Your task to perform on an android device: Go to Wikipedia Image 0: 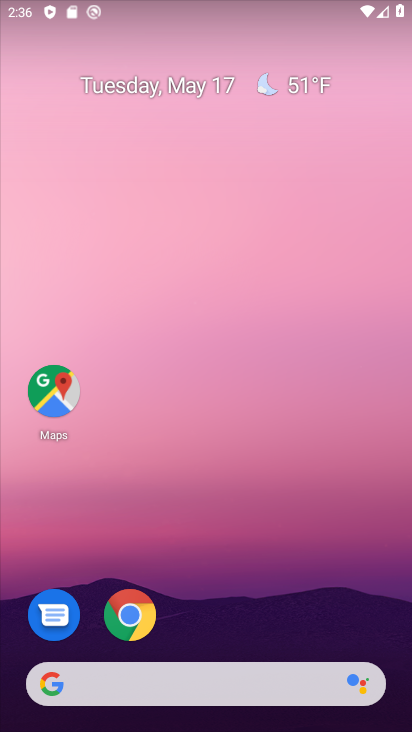
Step 0: drag from (209, 639) to (307, 186)
Your task to perform on an android device: Go to Wikipedia Image 1: 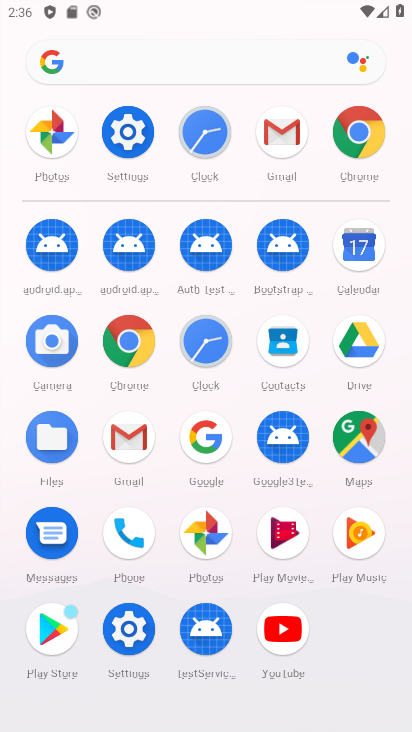
Step 1: click (123, 336)
Your task to perform on an android device: Go to Wikipedia Image 2: 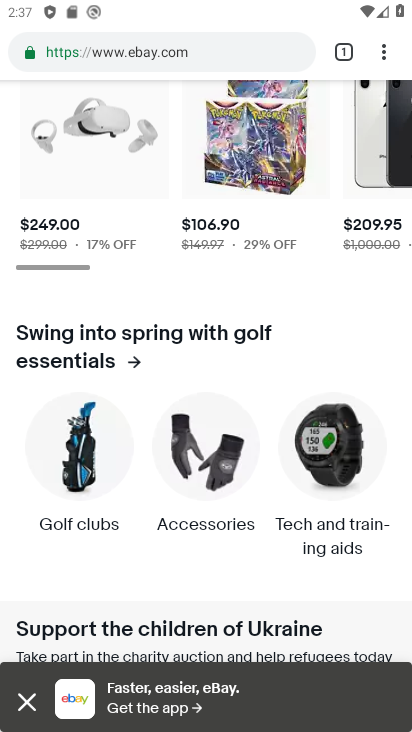
Step 2: click (343, 45)
Your task to perform on an android device: Go to Wikipedia Image 3: 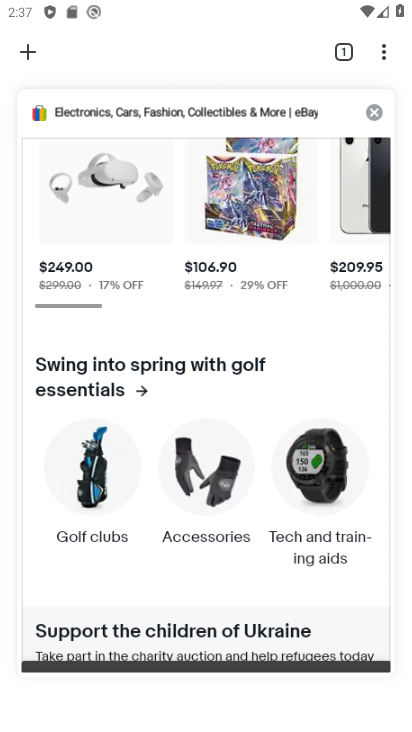
Step 3: click (373, 108)
Your task to perform on an android device: Go to Wikipedia Image 4: 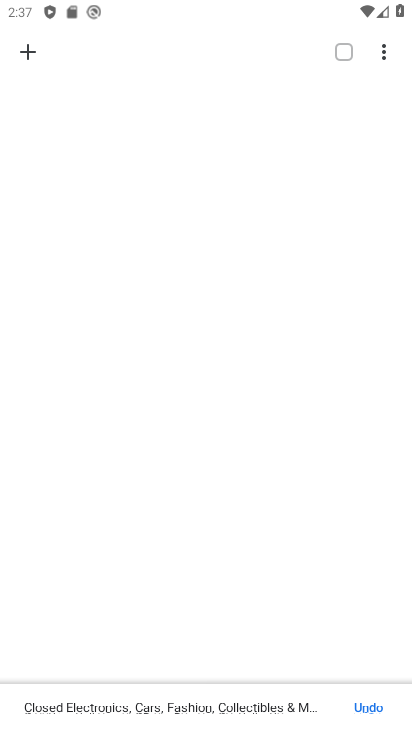
Step 4: click (28, 50)
Your task to perform on an android device: Go to Wikipedia Image 5: 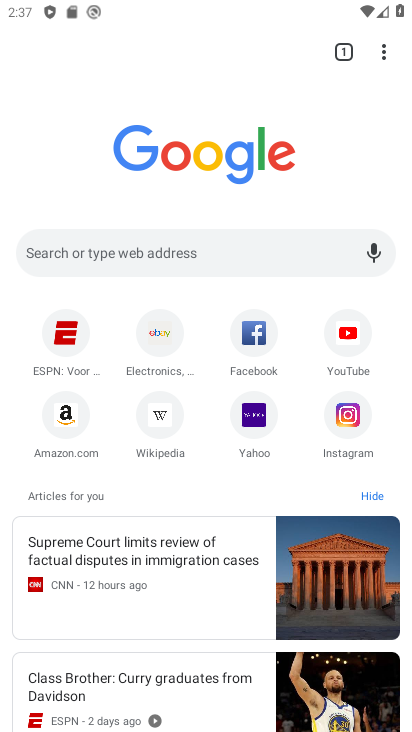
Step 5: click (157, 407)
Your task to perform on an android device: Go to Wikipedia Image 6: 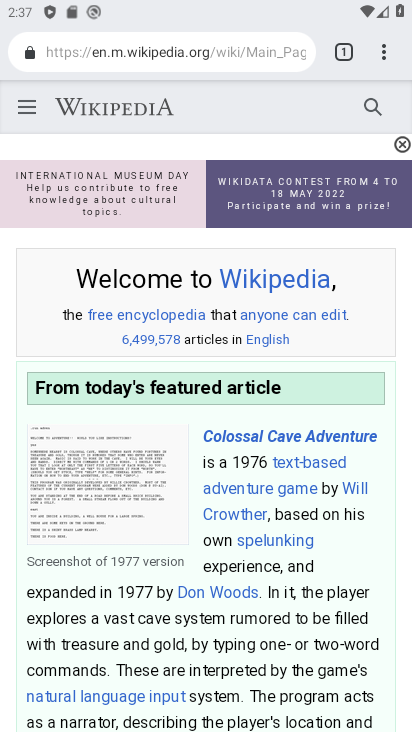
Step 6: task complete